Your task to perform on an android device: Open accessibility settings Image 0: 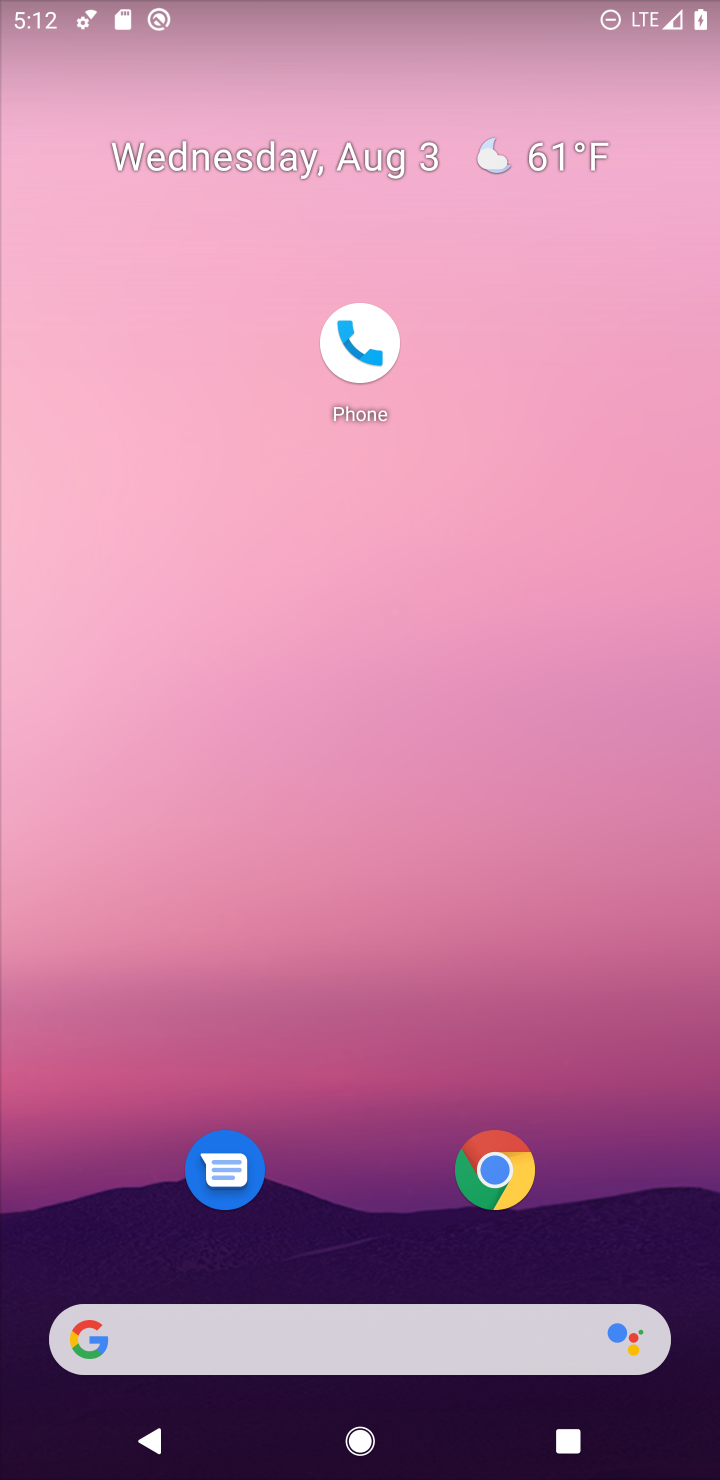
Step 0: drag from (346, 938) to (346, 838)
Your task to perform on an android device: Open accessibility settings Image 1: 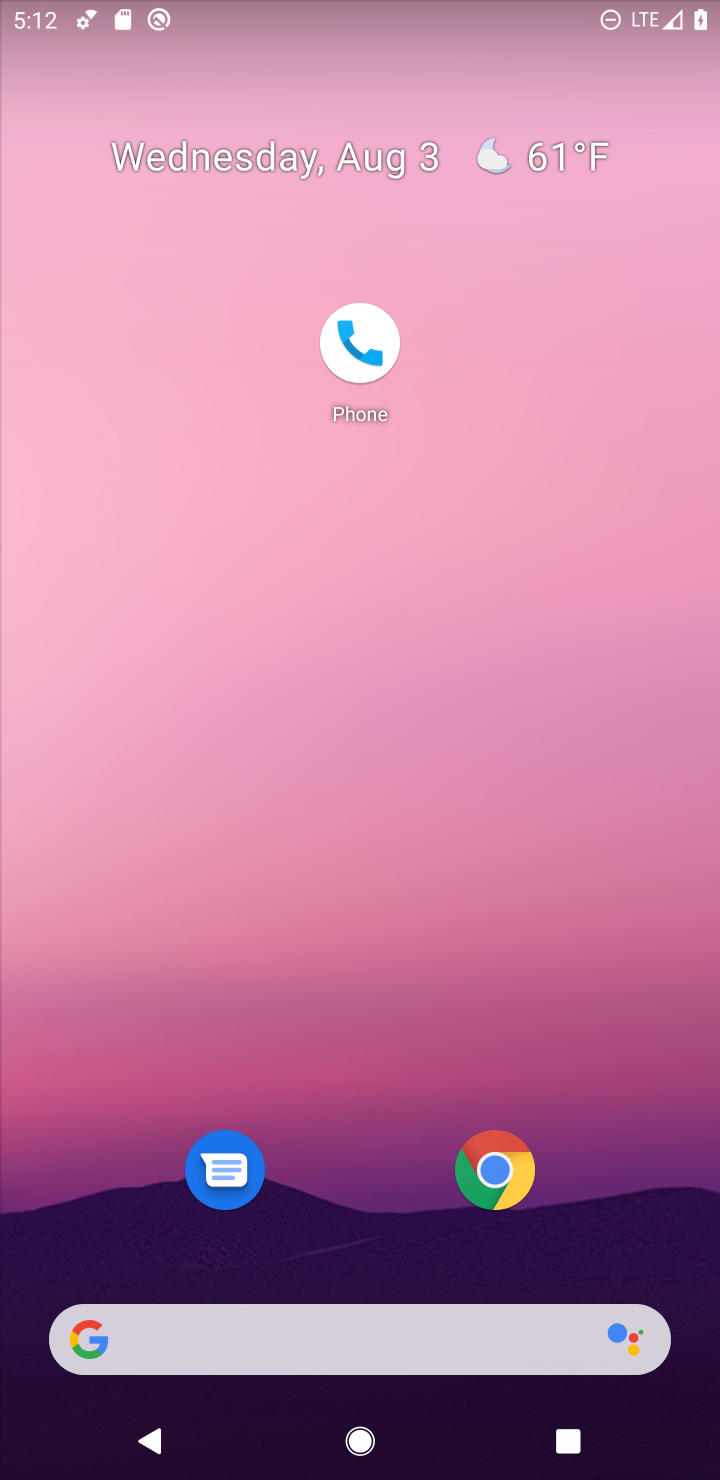
Step 1: drag from (346, 1197) to (486, 201)
Your task to perform on an android device: Open accessibility settings Image 2: 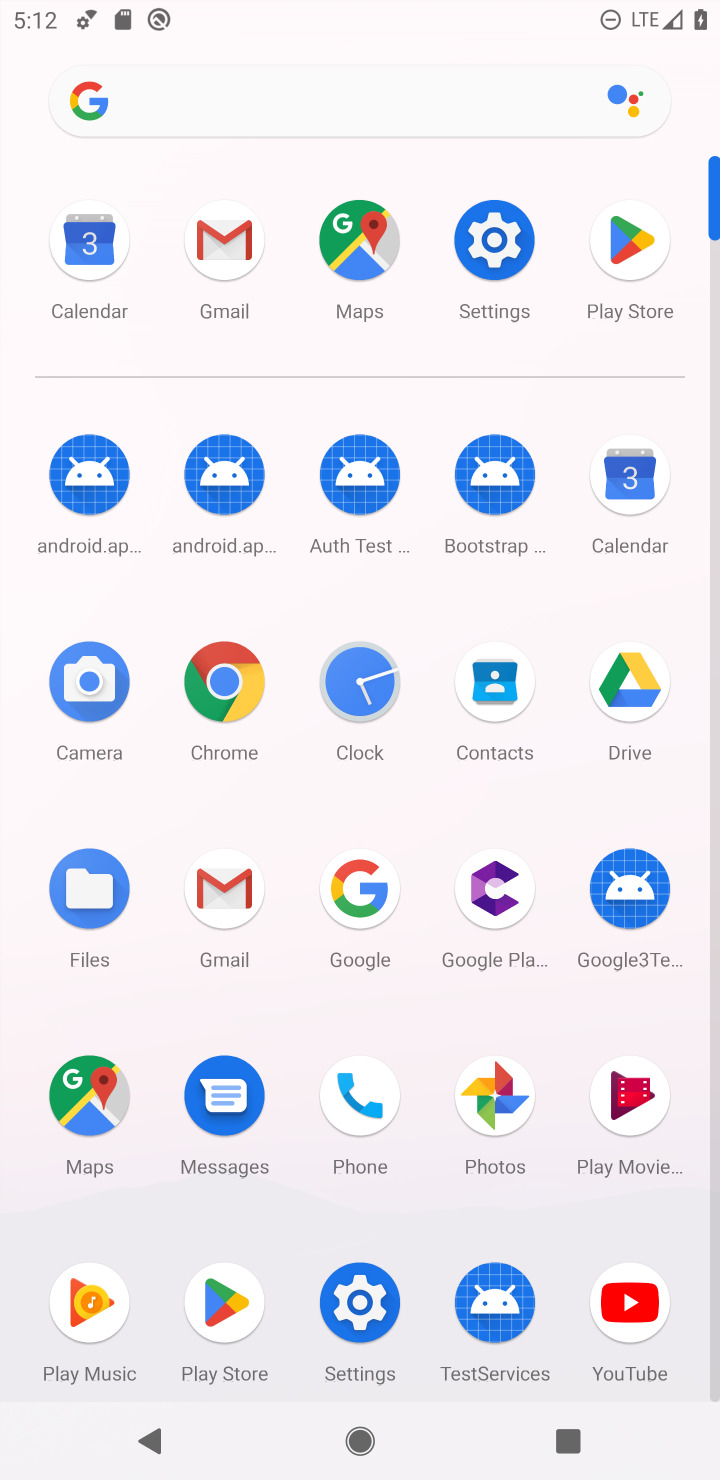
Step 2: click (449, 522)
Your task to perform on an android device: Open accessibility settings Image 3: 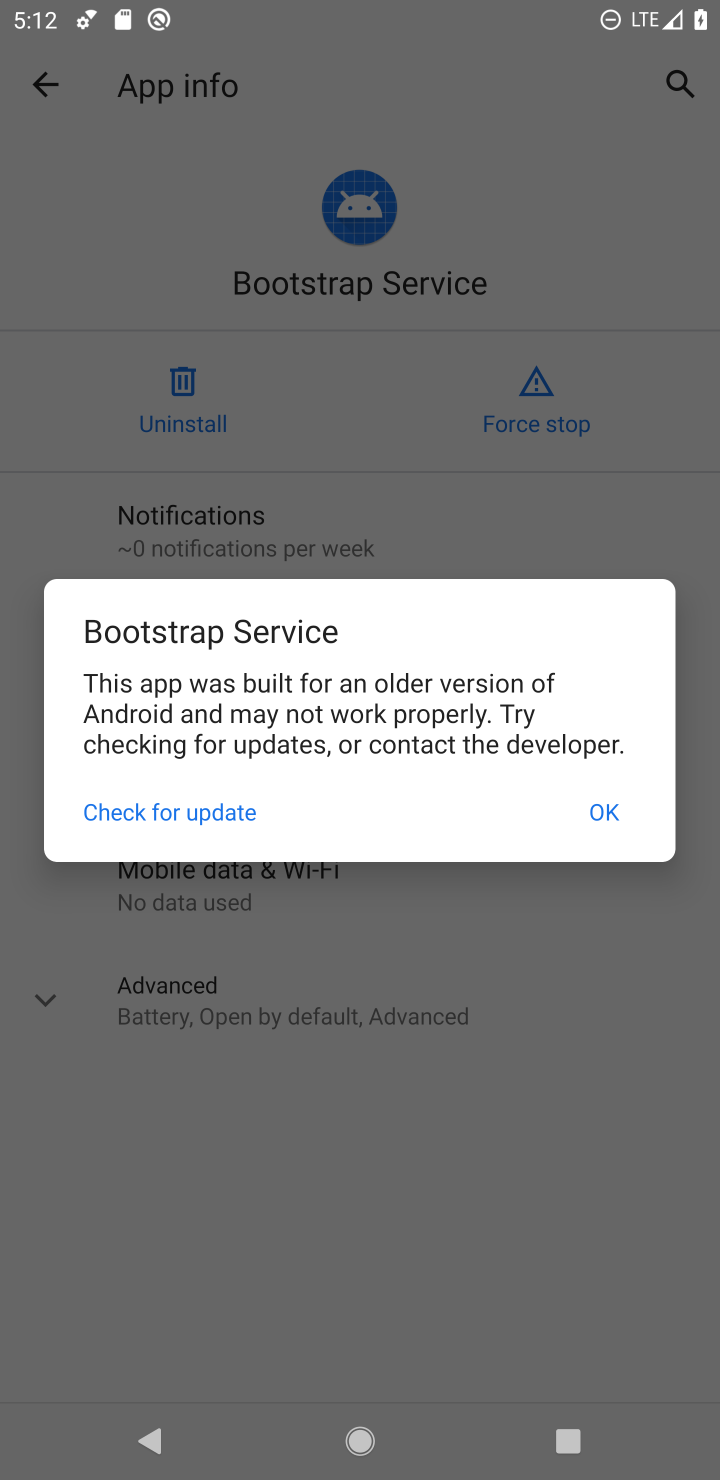
Step 3: press back button
Your task to perform on an android device: Open accessibility settings Image 4: 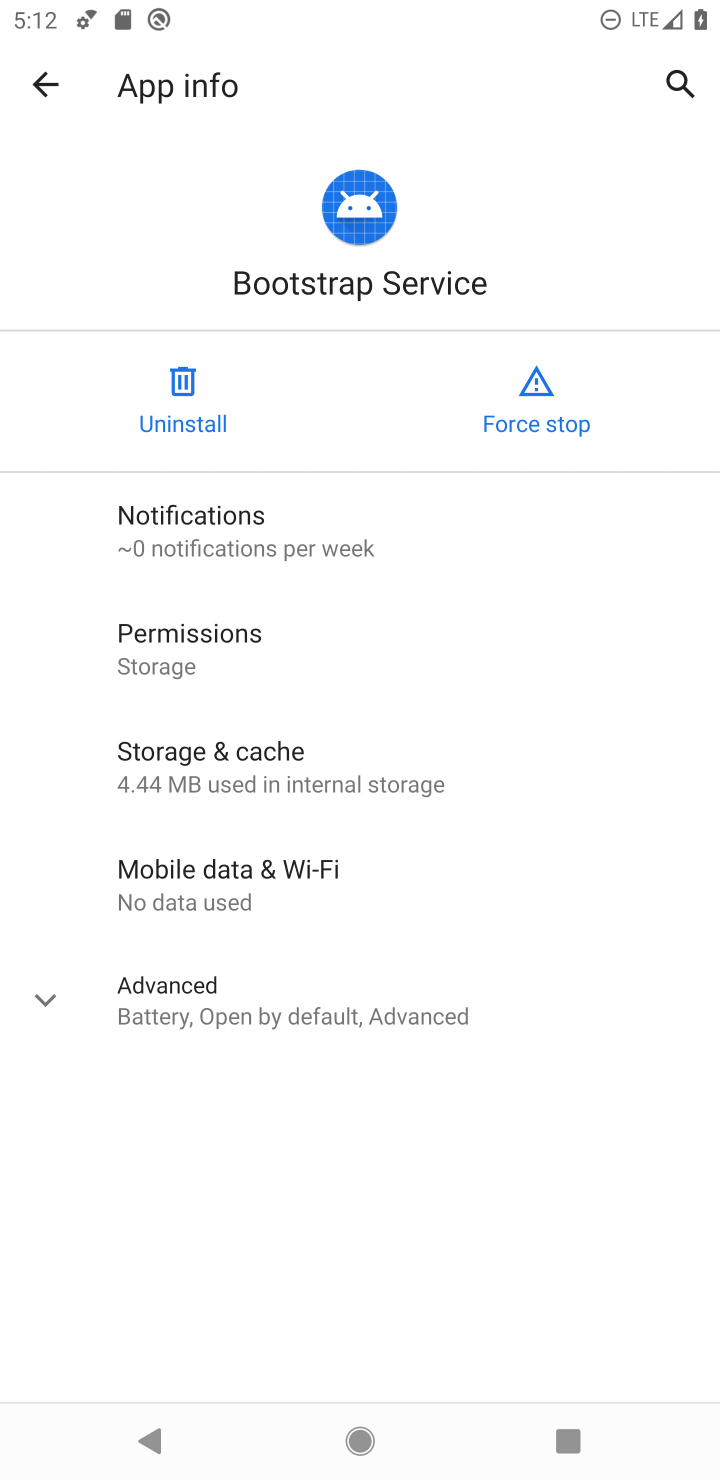
Step 4: press back button
Your task to perform on an android device: Open accessibility settings Image 5: 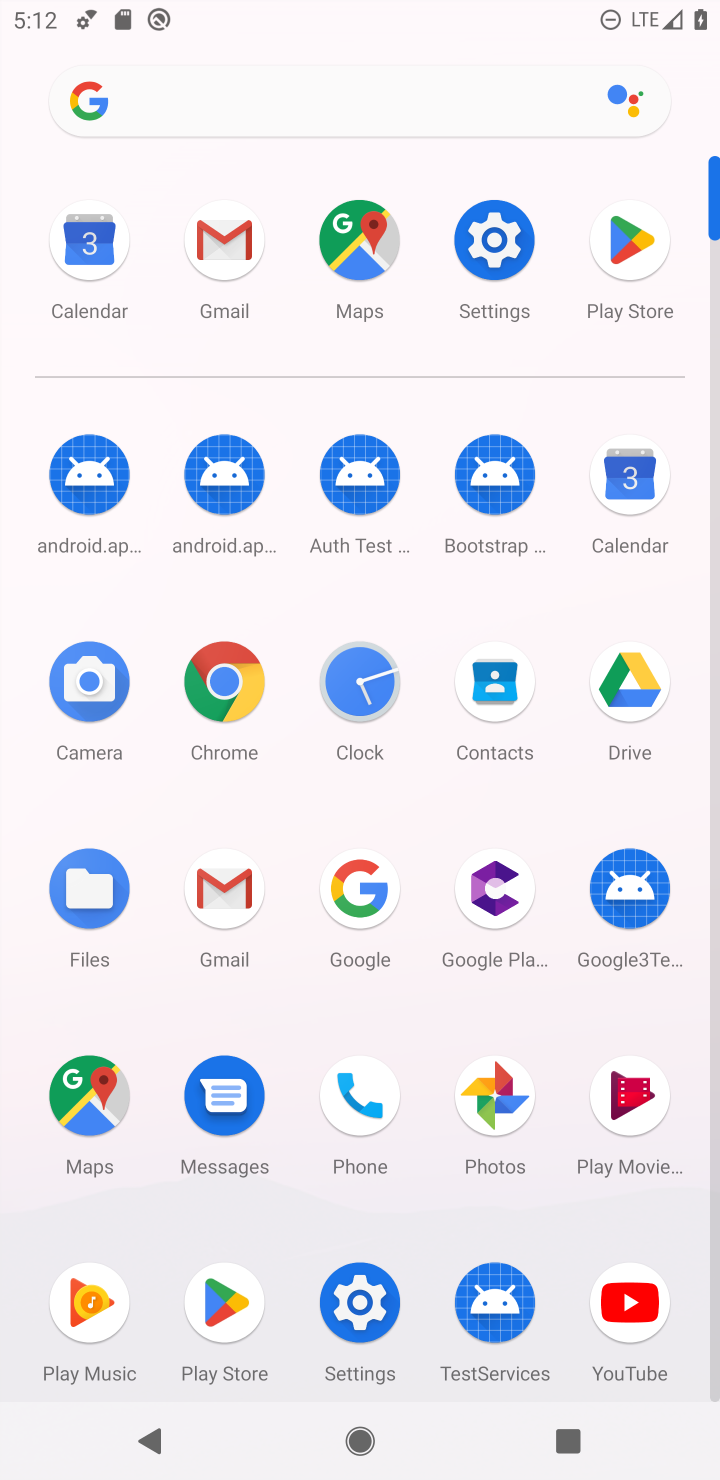
Step 5: click (497, 211)
Your task to perform on an android device: Open accessibility settings Image 6: 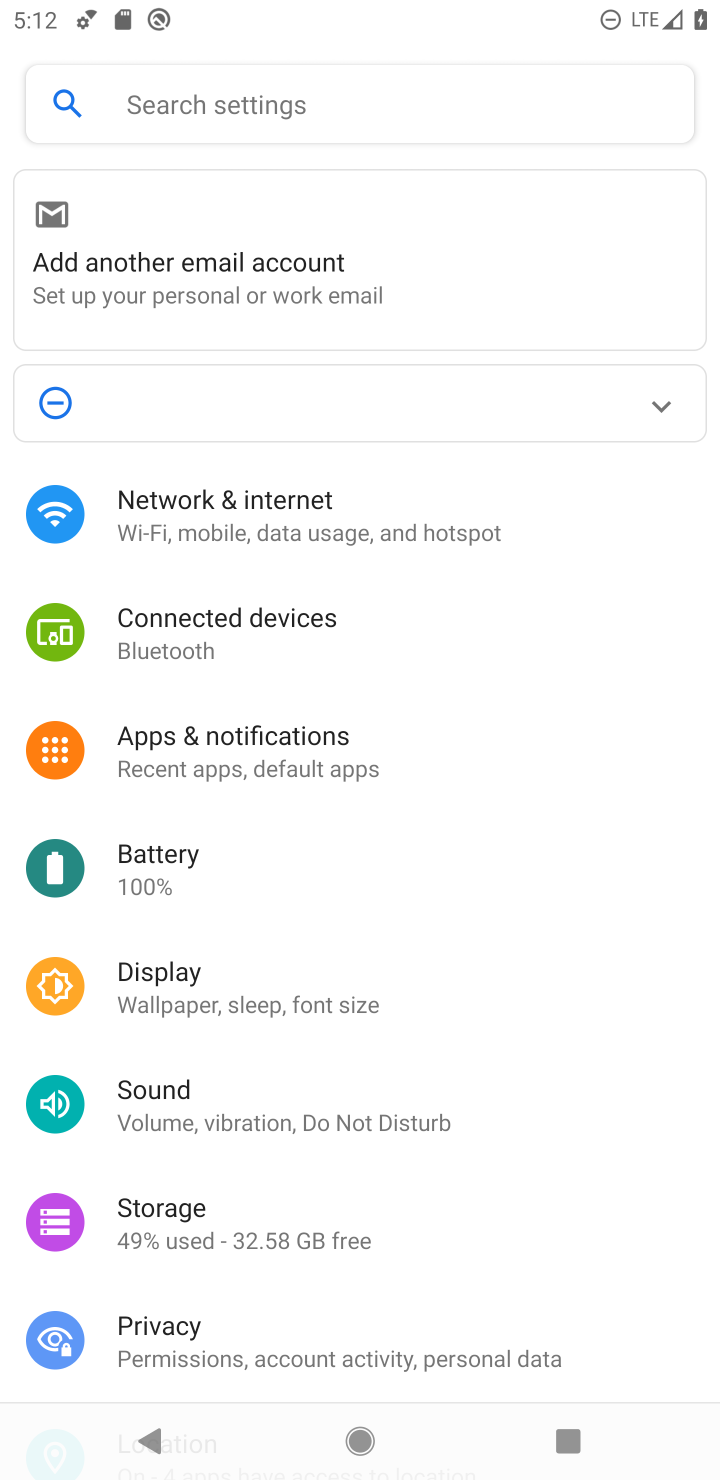
Step 6: drag from (243, 1092) to (237, 723)
Your task to perform on an android device: Open accessibility settings Image 7: 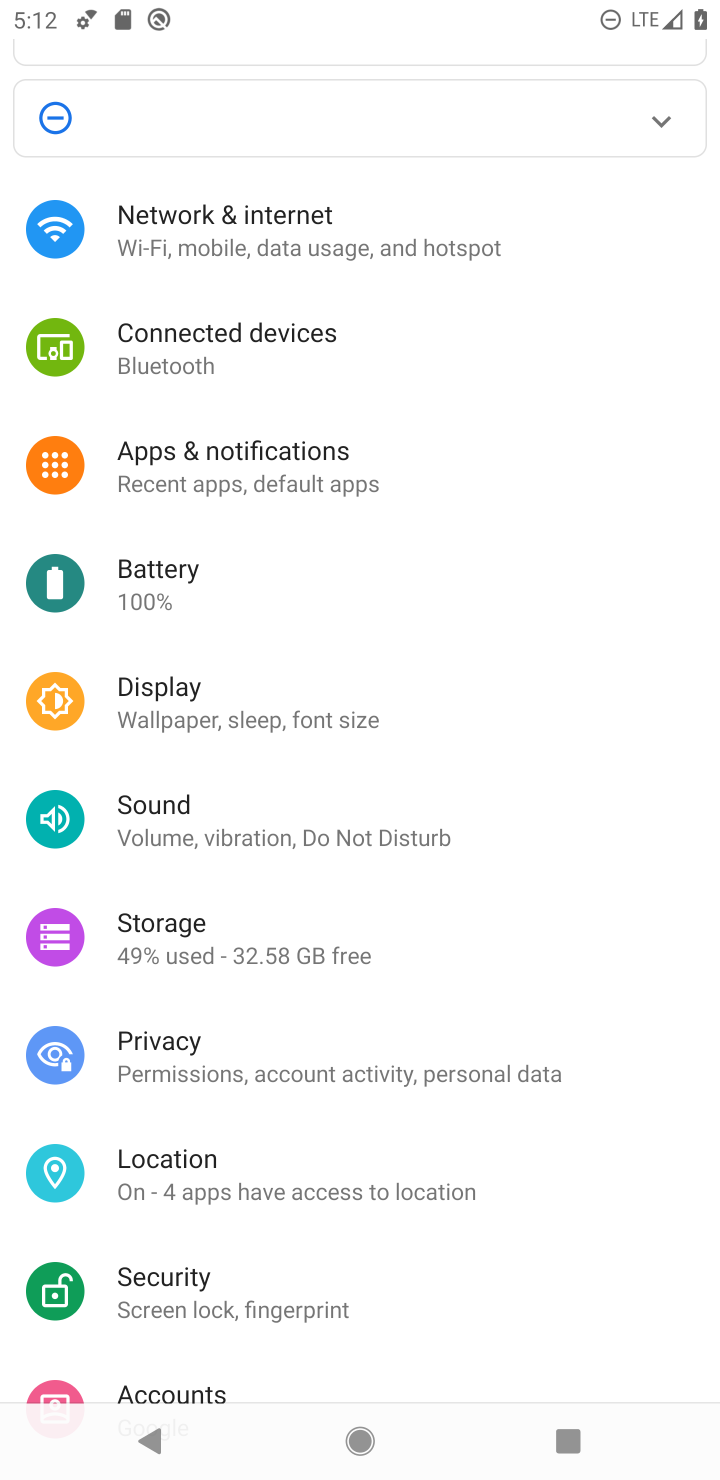
Step 7: drag from (184, 1314) to (214, 824)
Your task to perform on an android device: Open accessibility settings Image 8: 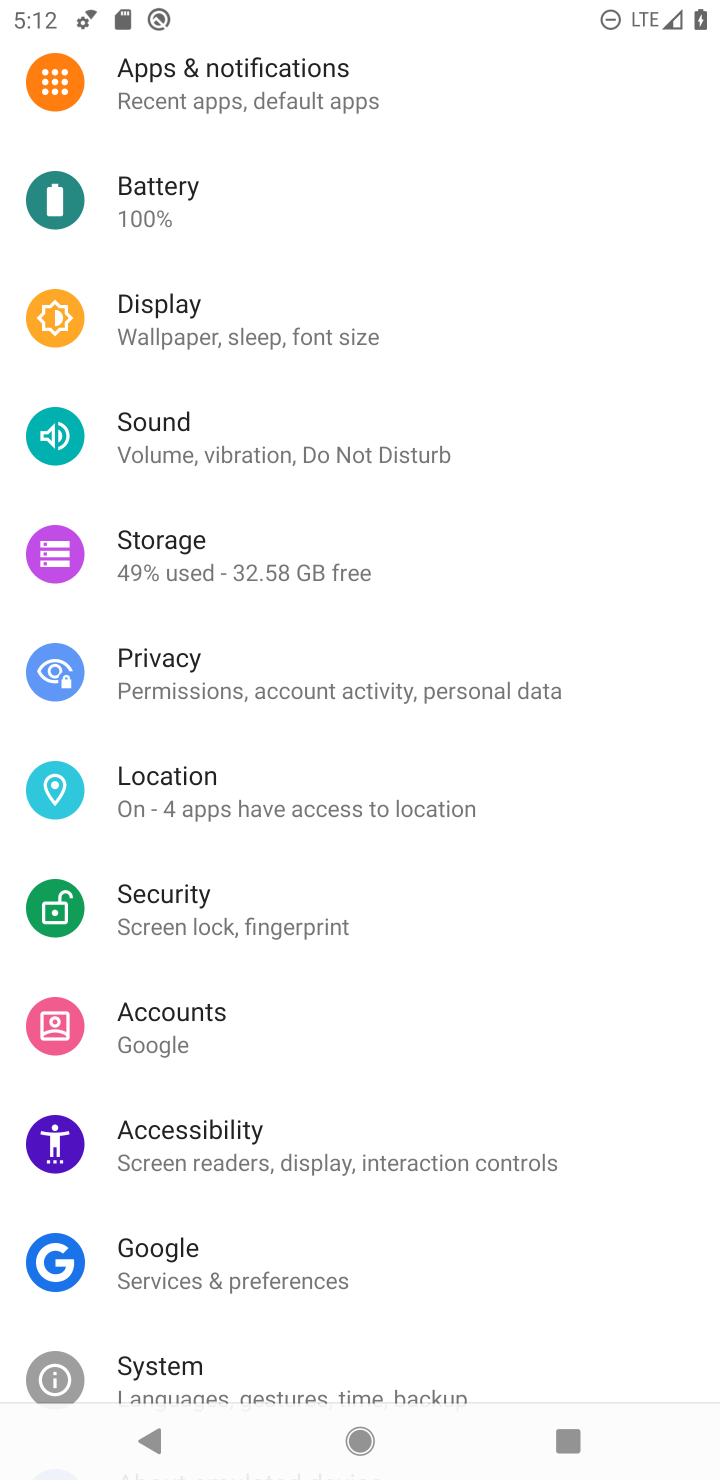
Step 8: click (200, 1136)
Your task to perform on an android device: Open accessibility settings Image 9: 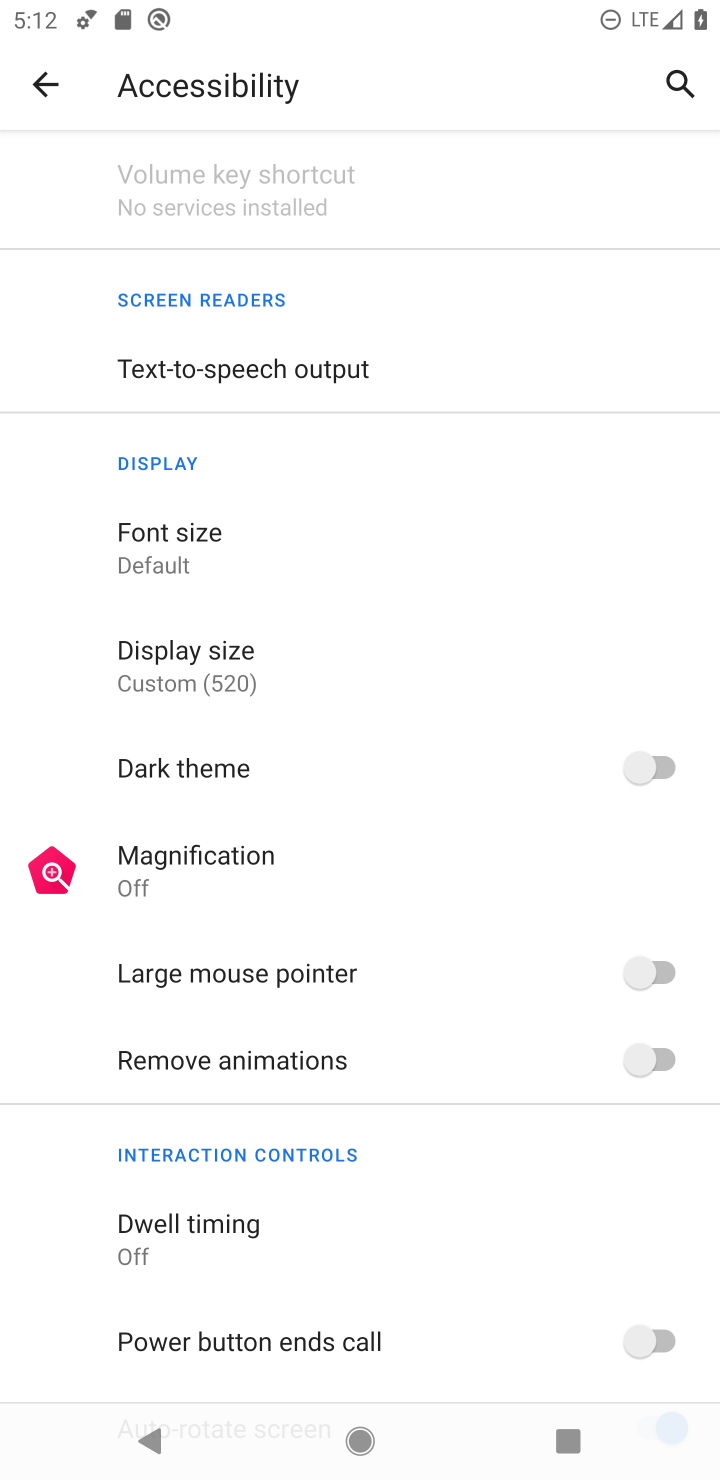
Step 9: task complete